Your task to perform on an android device: turn on priority inbox in the gmail app Image 0: 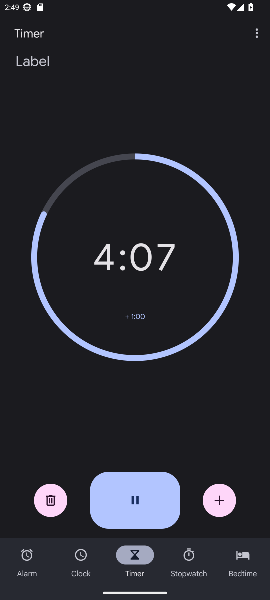
Step 0: task complete